Your task to perform on an android device: Open Wikipedia Image 0: 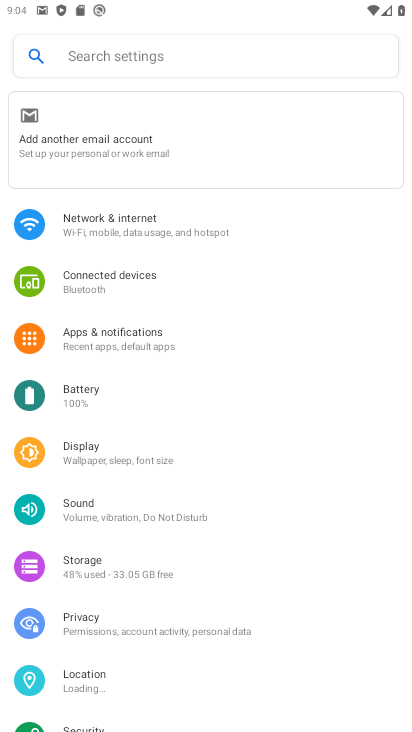
Step 0: press home button
Your task to perform on an android device: Open Wikipedia Image 1: 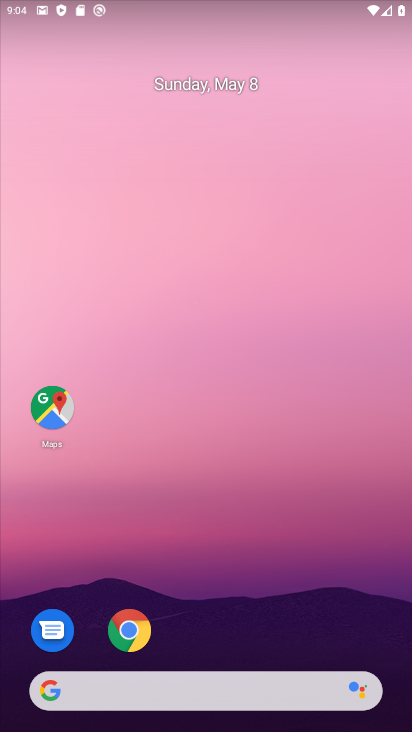
Step 1: click (132, 633)
Your task to perform on an android device: Open Wikipedia Image 2: 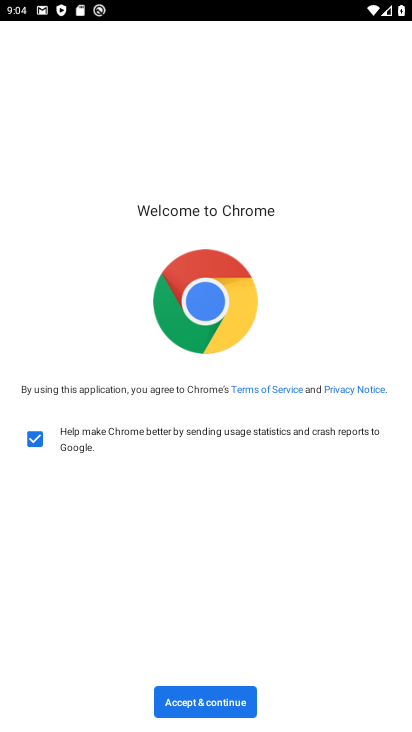
Step 2: click (184, 696)
Your task to perform on an android device: Open Wikipedia Image 3: 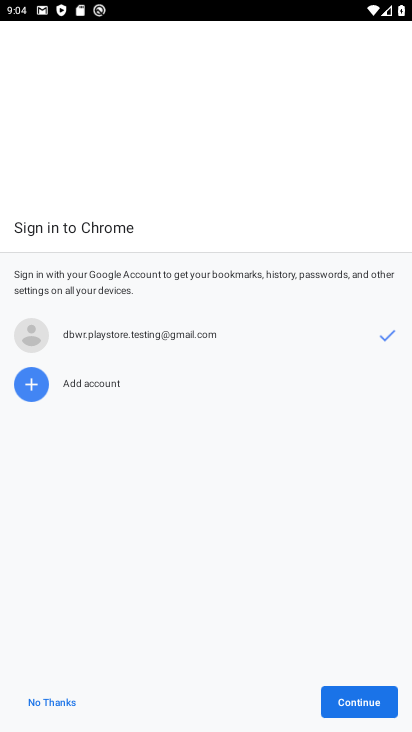
Step 3: click (336, 694)
Your task to perform on an android device: Open Wikipedia Image 4: 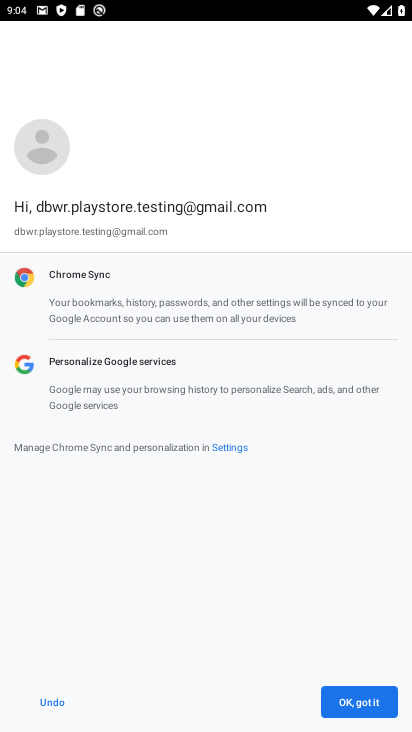
Step 4: click (359, 699)
Your task to perform on an android device: Open Wikipedia Image 5: 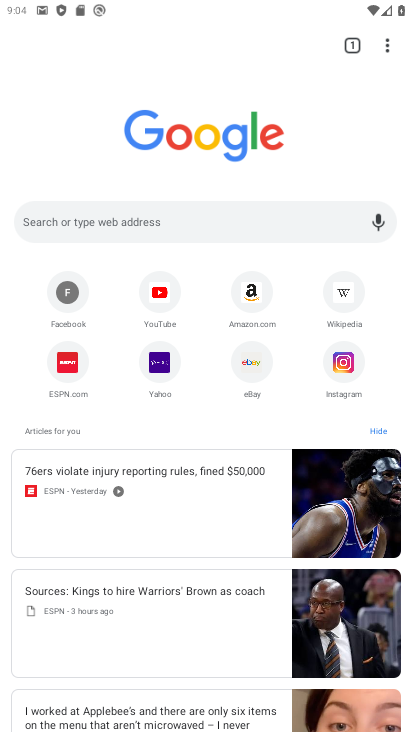
Step 5: click (344, 310)
Your task to perform on an android device: Open Wikipedia Image 6: 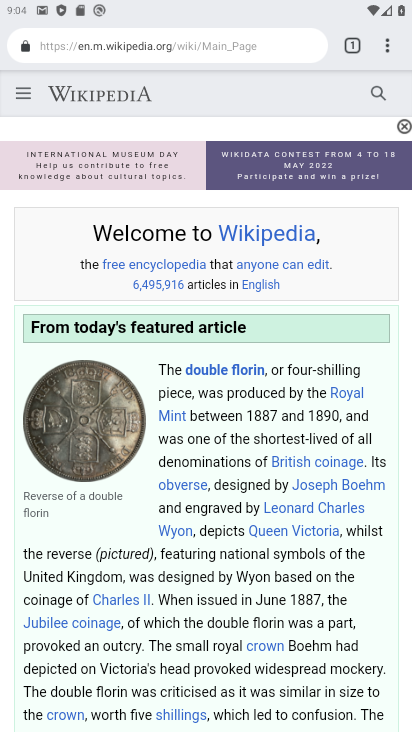
Step 6: task complete